Your task to perform on an android device: Go to calendar. Show me events next week Image 0: 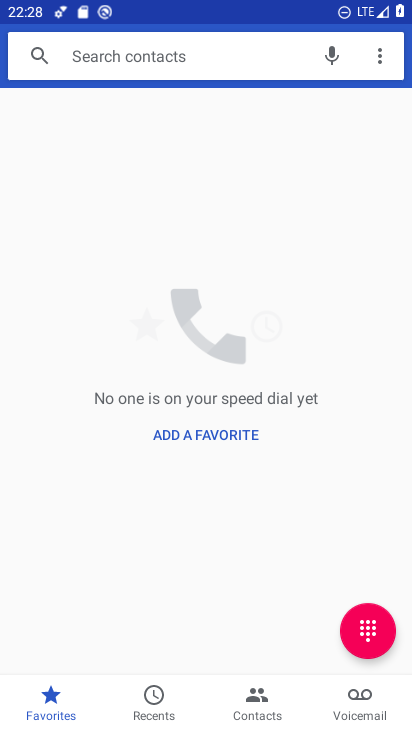
Step 0: press home button
Your task to perform on an android device: Go to calendar. Show me events next week Image 1: 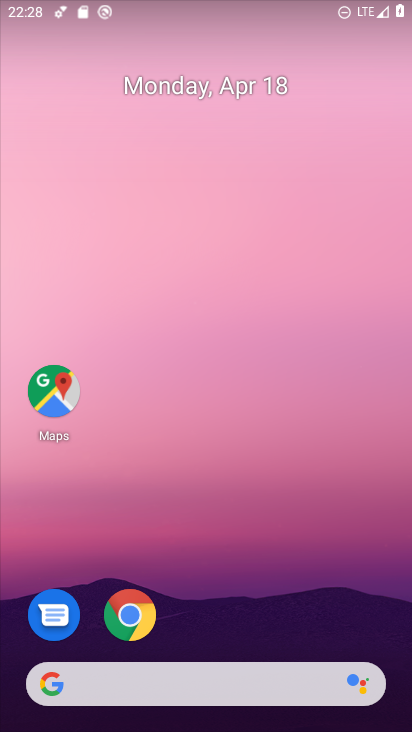
Step 1: drag from (349, 597) to (340, 2)
Your task to perform on an android device: Go to calendar. Show me events next week Image 2: 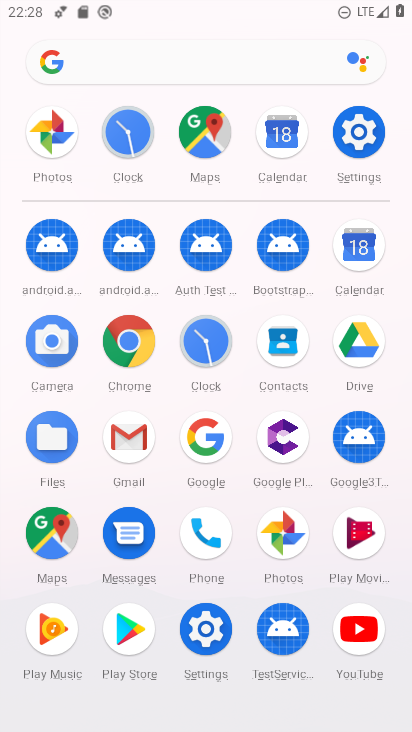
Step 2: click (352, 244)
Your task to perform on an android device: Go to calendar. Show me events next week Image 3: 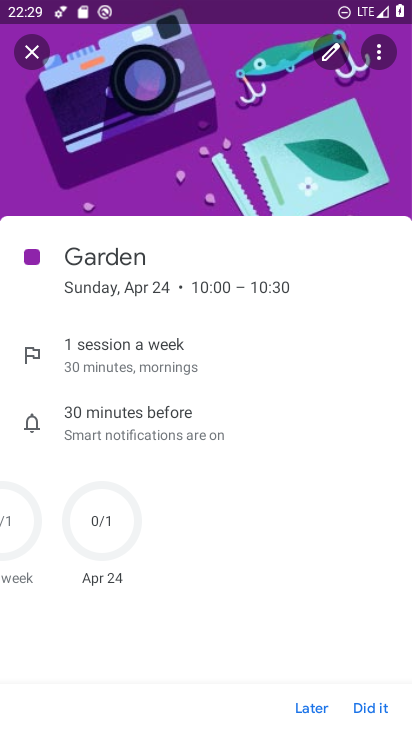
Step 3: click (38, 54)
Your task to perform on an android device: Go to calendar. Show me events next week Image 4: 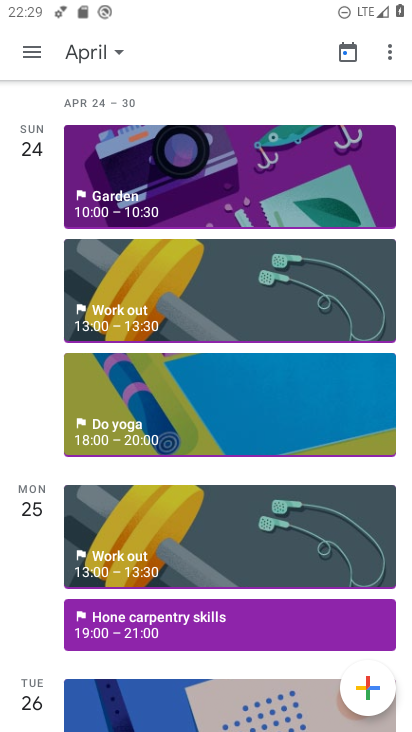
Step 4: click (116, 54)
Your task to perform on an android device: Go to calendar. Show me events next week Image 5: 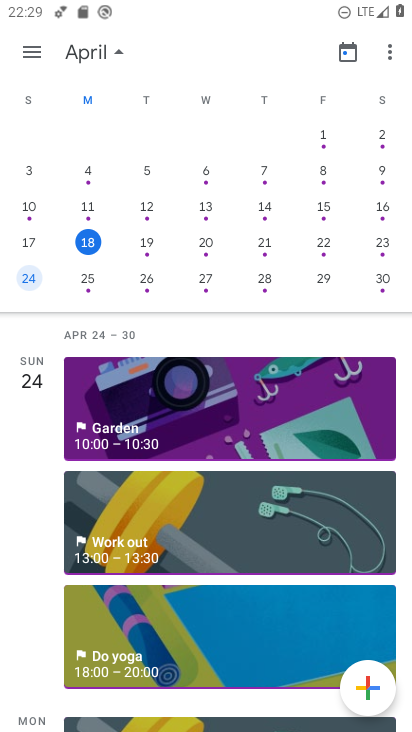
Step 5: click (144, 284)
Your task to perform on an android device: Go to calendar. Show me events next week Image 6: 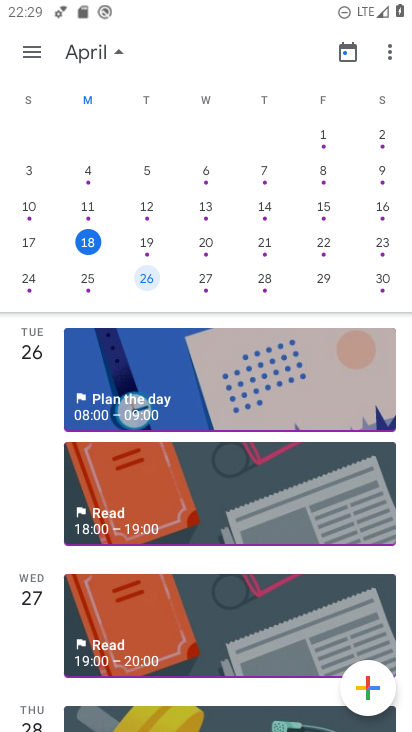
Step 6: click (147, 282)
Your task to perform on an android device: Go to calendar. Show me events next week Image 7: 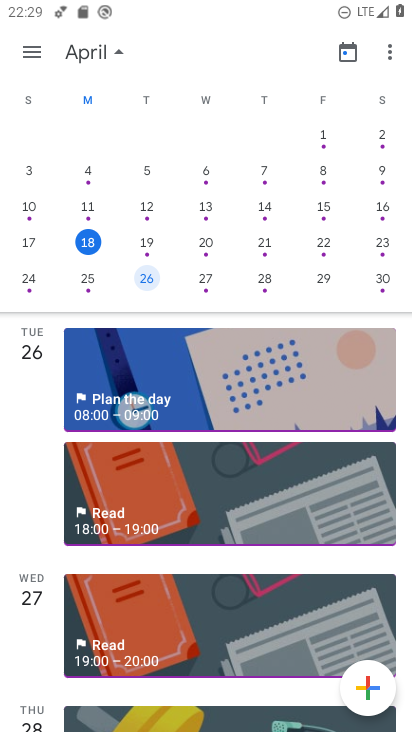
Step 7: click (138, 281)
Your task to perform on an android device: Go to calendar. Show me events next week Image 8: 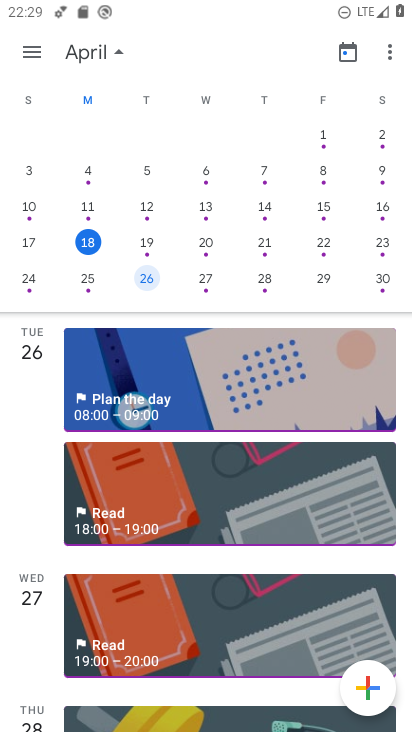
Step 8: drag from (174, 375) to (161, 328)
Your task to perform on an android device: Go to calendar. Show me events next week Image 9: 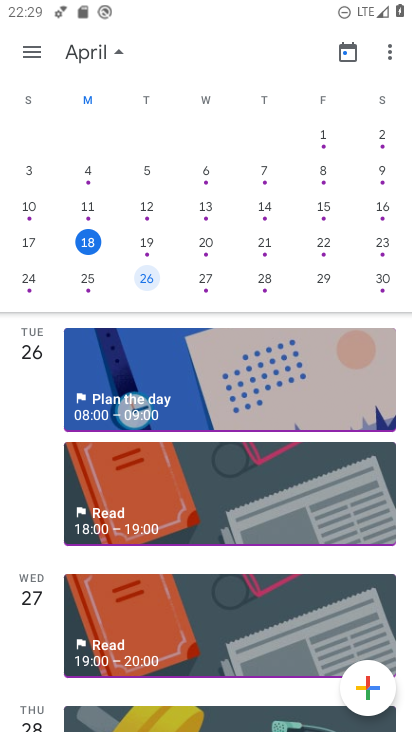
Step 9: drag from (195, 433) to (199, 540)
Your task to perform on an android device: Go to calendar. Show me events next week Image 10: 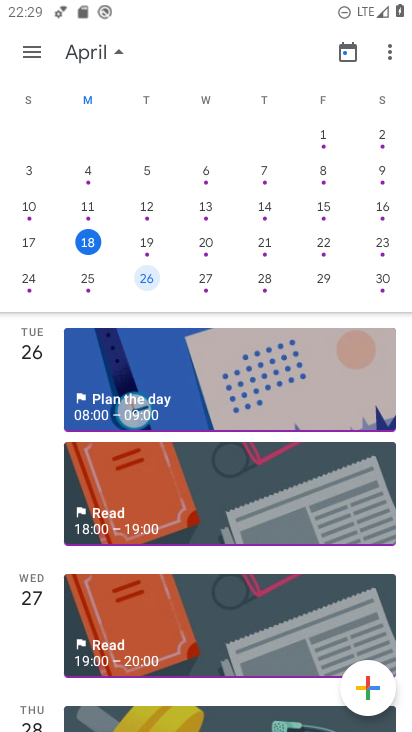
Step 10: click (201, 286)
Your task to perform on an android device: Go to calendar. Show me events next week Image 11: 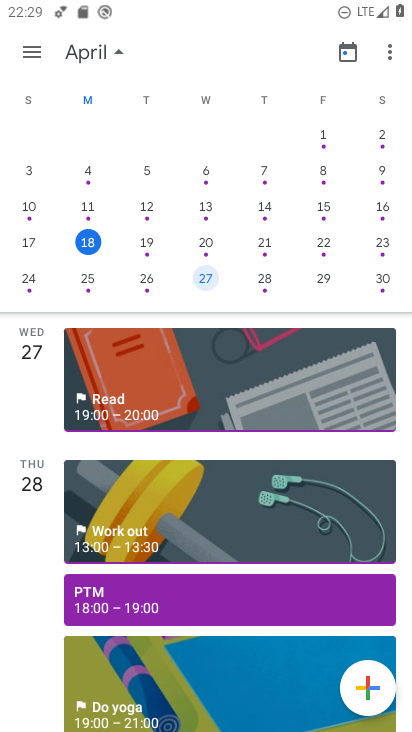
Step 11: click (160, 598)
Your task to perform on an android device: Go to calendar. Show me events next week Image 12: 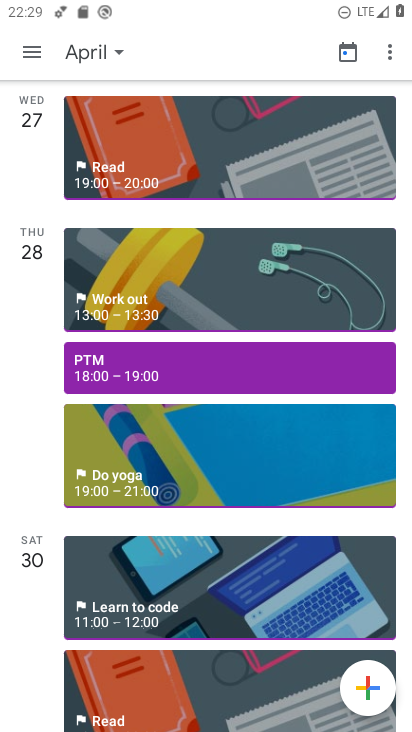
Step 12: click (115, 367)
Your task to perform on an android device: Go to calendar. Show me events next week Image 13: 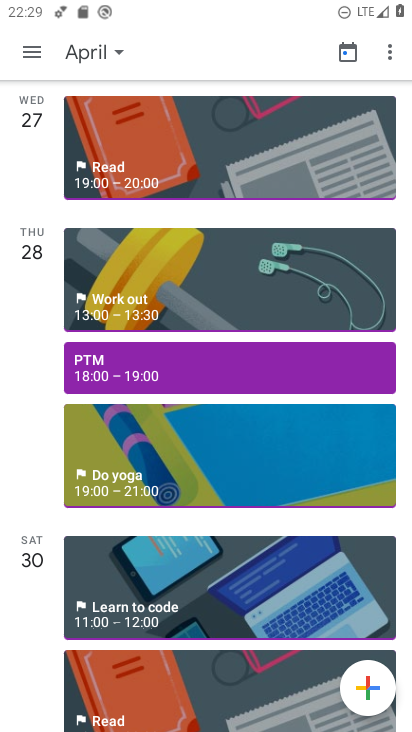
Step 13: click (171, 382)
Your task to perform on an android device: Go to calendar. Show me events next week Image 14: 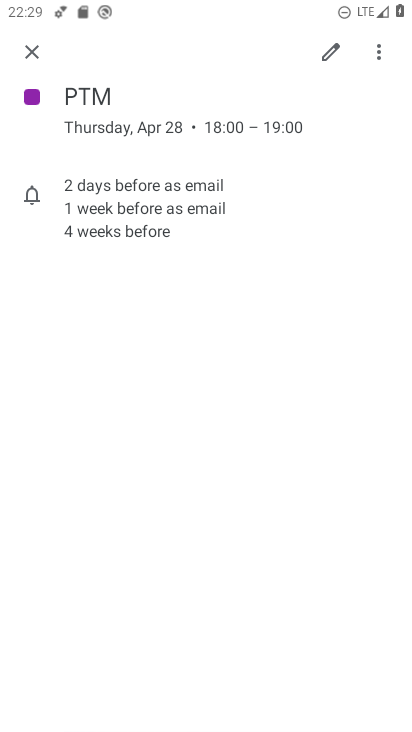
Step 14: task complete